Your task to perform on an android device: Turn off the flashlight Image 0: 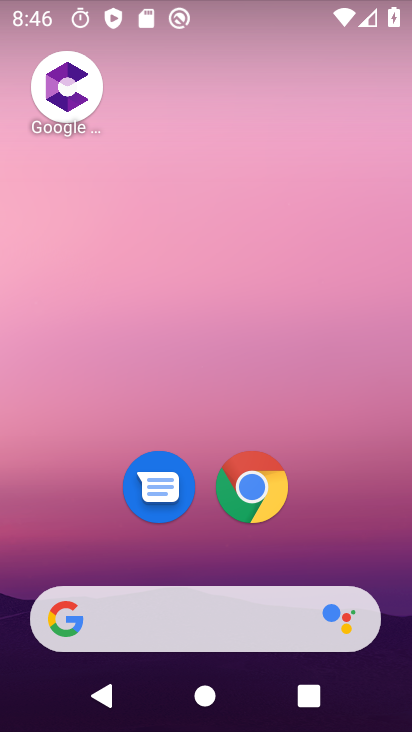
Step 0: drag from (316, 510) to (56, 155)
Your task to perform on an android device: Turn off the flashlight Image 1: 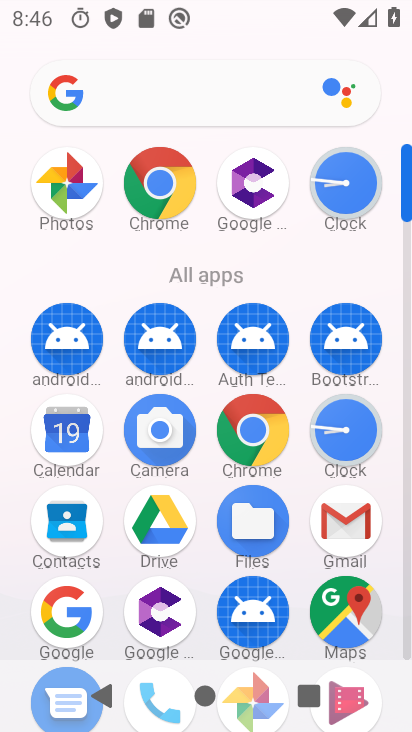
Step 1: drag from (292, 421) to (172, 137)
Your task to perform on an android device: Turn off the flashlight Image 2: 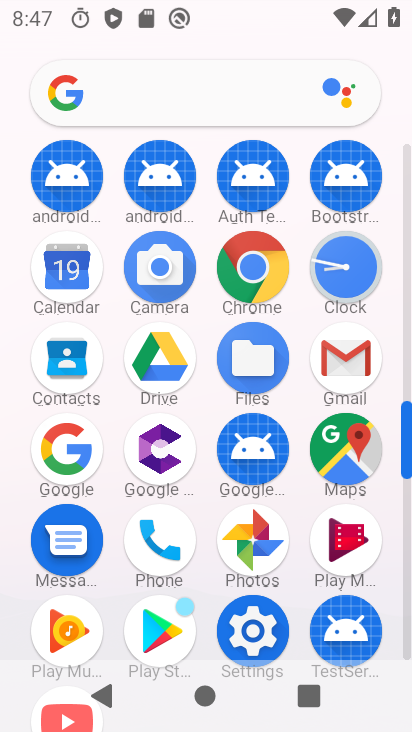
Step 2: click (238, 534)
Your task to perform on an android device: Turn off the flashlight Image 3: 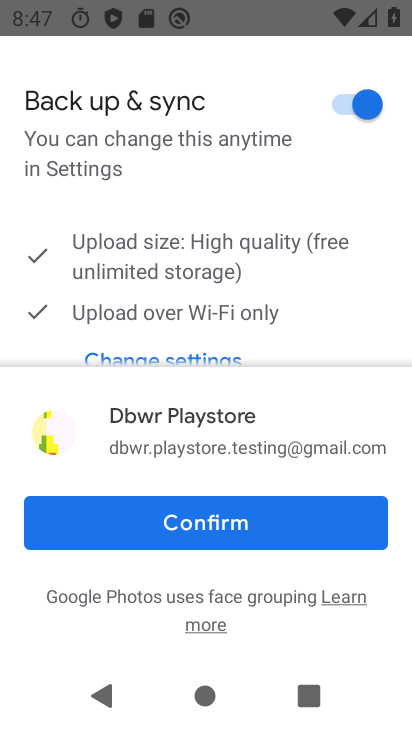
Step 3: click (218, 535)
Your task to perform on an android device: Turn off the flashlight Image 4: 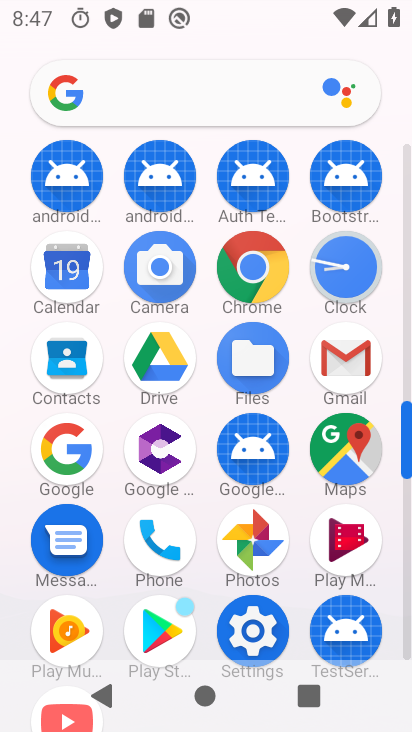
Step 4: click (259, 616)
Your task to perform on an android device: Turn off the flashlight Image 5: 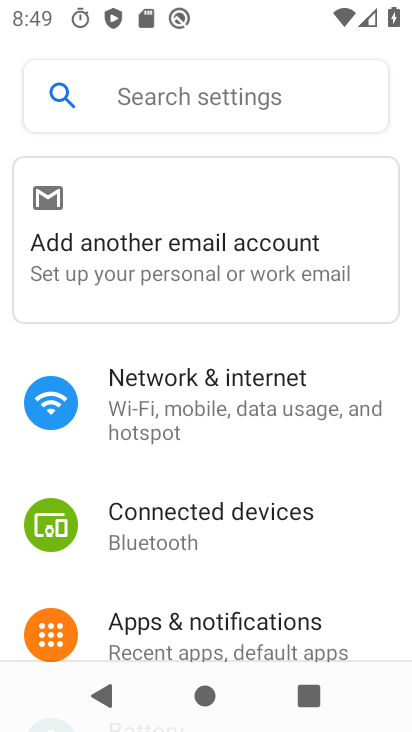
Step 5: task complete